Your task to perform on an android device: read, delete, or share a saved page in the chrome app Image 0: 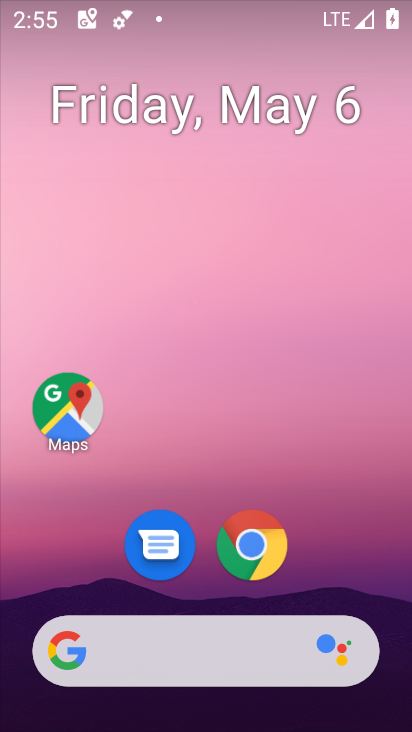
Step 0: click (263, 542)
Your task to perform on an android device: read, delete, or share a saved page in the chrome app Image 1: 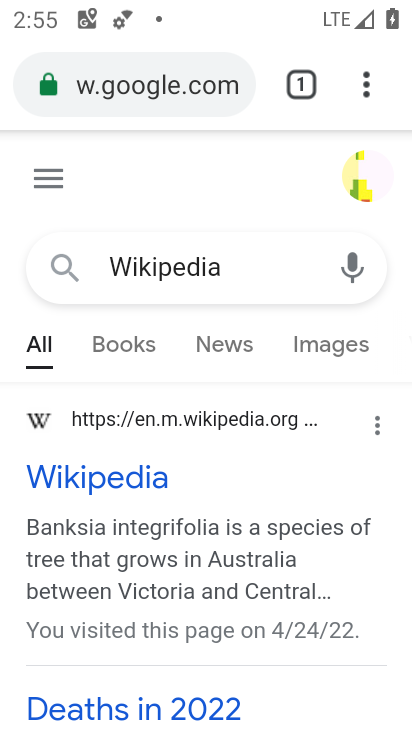
Step 1: click (366, 84)
Your task to perform on an android device: read, delete, or share a saved page in the chrome app Image 2: 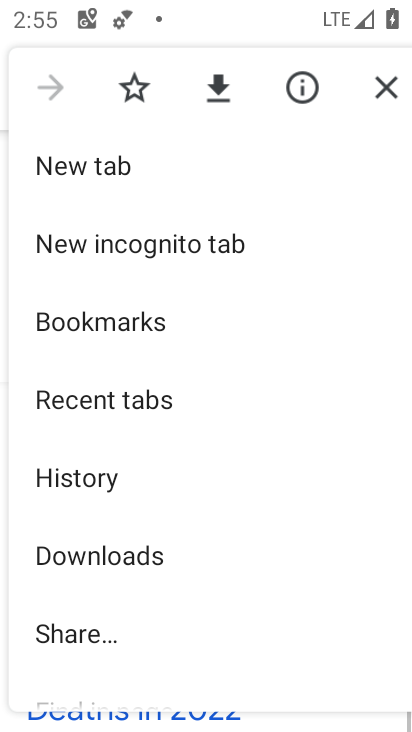
Step 2: drag from (270, 640) to (256, 297)
Your task to perform on an android device: read, delete, or share a saved page in the chrome app Image 3: 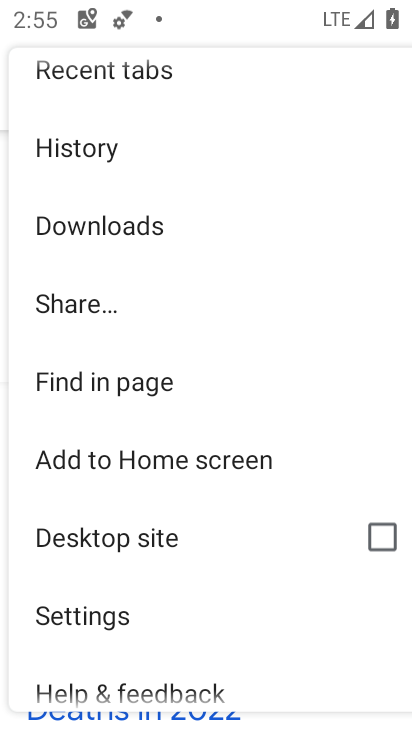
Step 3: drag from (300, 184) to (325, 488)
Your task to perform on an android device: read, delete, or share a saved page in the chrome app Image 4: 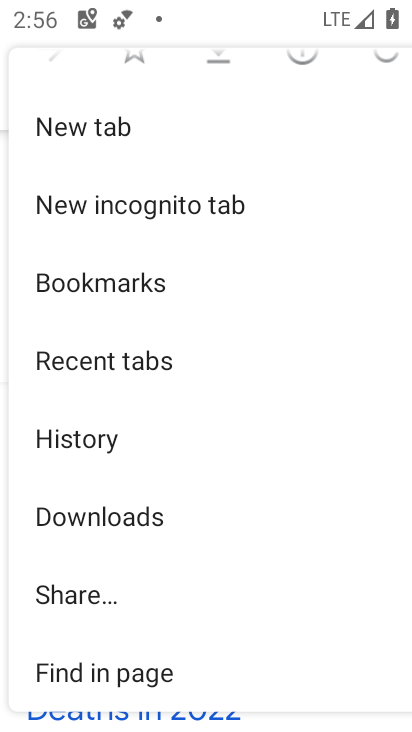
Step 4: click (83, 522)
Your task to perform on an android device: read, delete, or share a saved page in the chrome app Image 5: 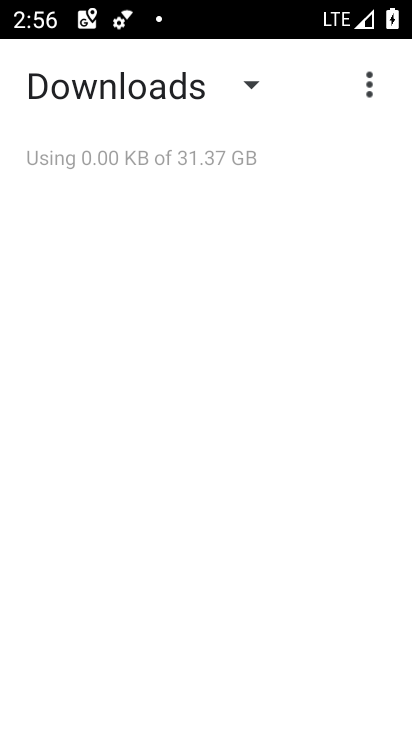
Step 5: task complete